Your task to perform on an android device: turn vacation reply on in the gmail app Image 0: 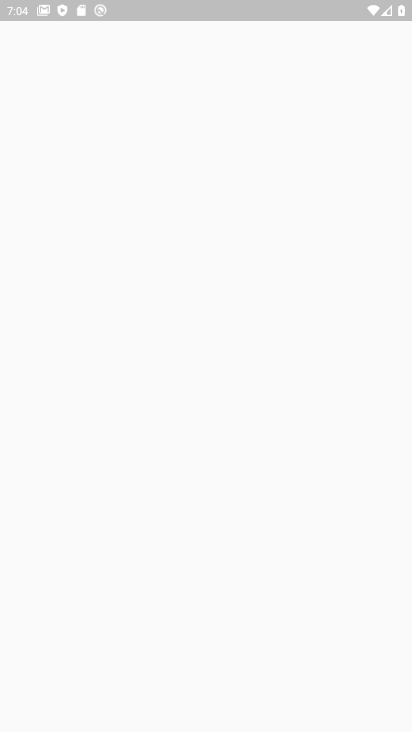
Step 0: press home button
Your task to perform on an android device: turn vacation reply on in the gmail app Image 1: 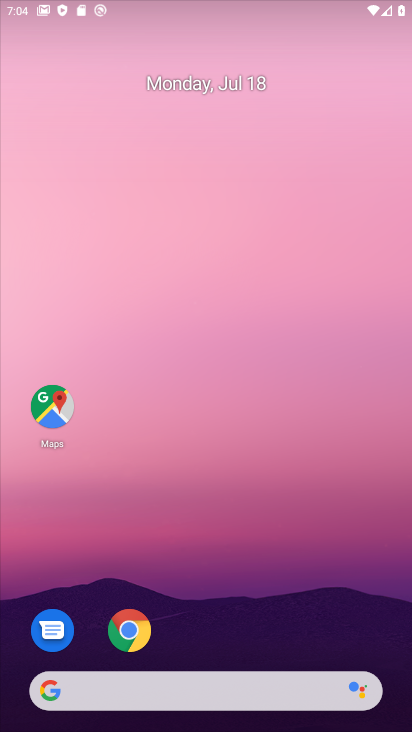
Step 1: drag from (320, 608) to (190, 50)
Your task to perform on an android device: turn vacation reply on in the gmail app Image 2: 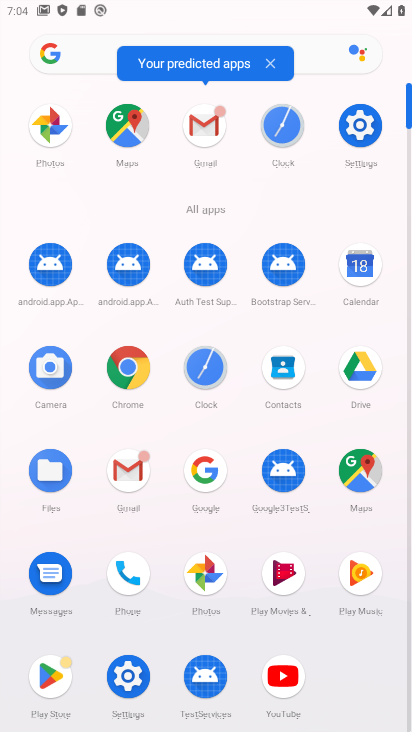
Step 2: click (213, 132)
Your task to perform on an android device: turn vacation reply on in the gmail app Image 3: 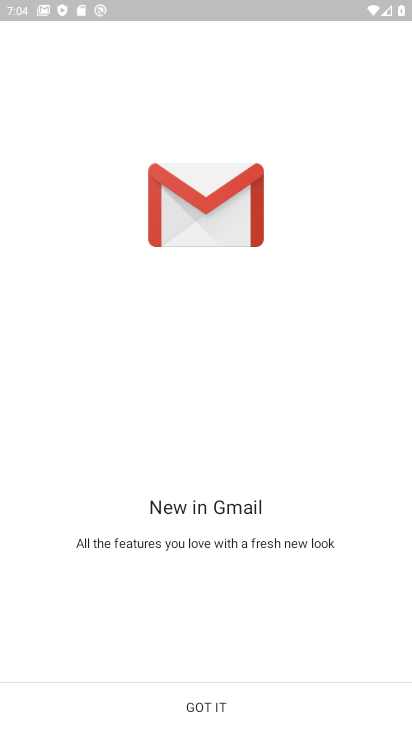
Step 3: click (199, 709)
Your task to perform on an android device: turn vacation reply on in the gmail app Image 4: 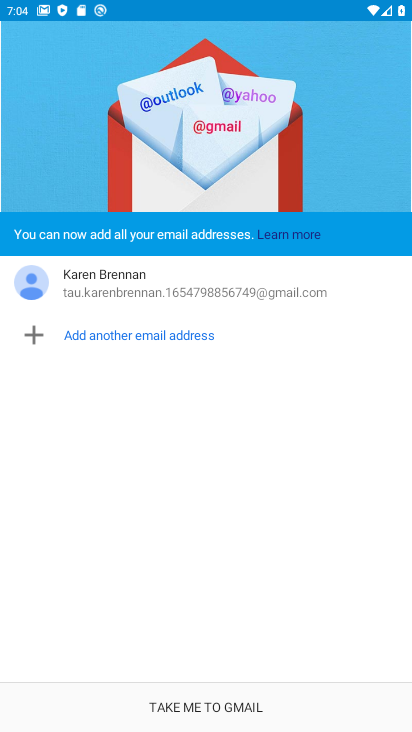
Step 4: click (199, 704)
Your task to perform on an android device: turn vacation reply on in the gmail app Image 5: 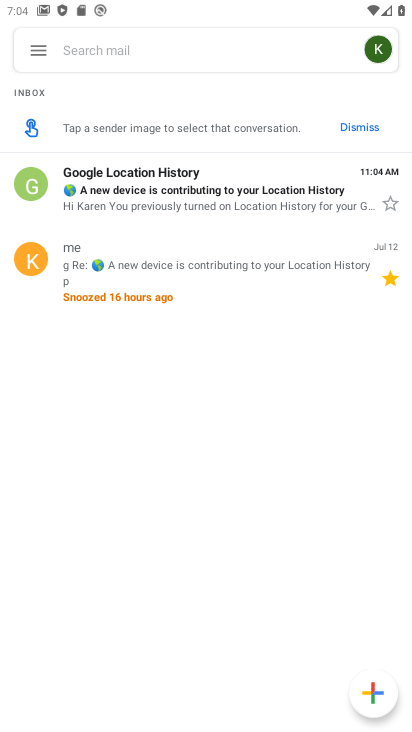
Step 5: click (35, 51)
Your task to perform on an android device: turn vacation reply on in the gmail app Image 6: 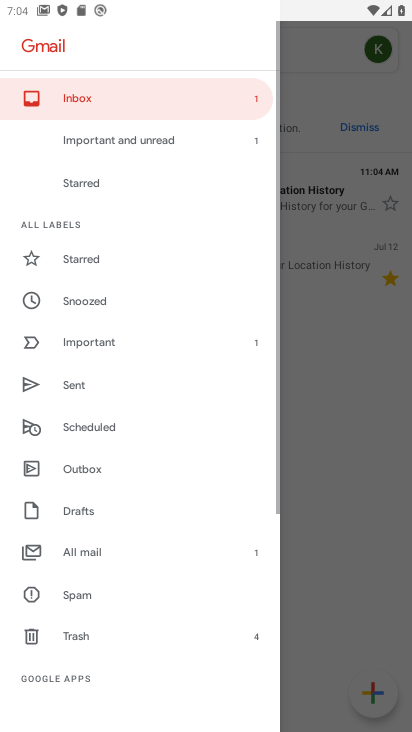
Step 6: drag from (103, 564) to (89, 150)
Your task to perform on an android device: turn vacation reply on in the gmail app Image 7: 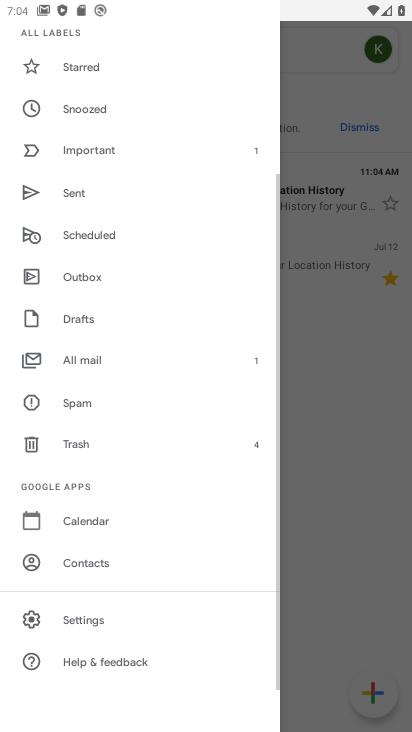
Step 7: click (97, 614)
Your task to perform on an android device: turn vacation reply on in the gmail app Image 8: 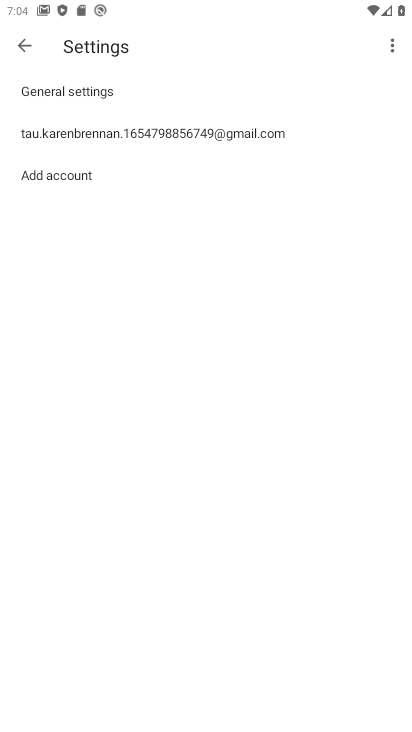
Step 8: click (128, 143)
Your task to perform on an android device: turn vacation reply on in the gmail app Image 9: 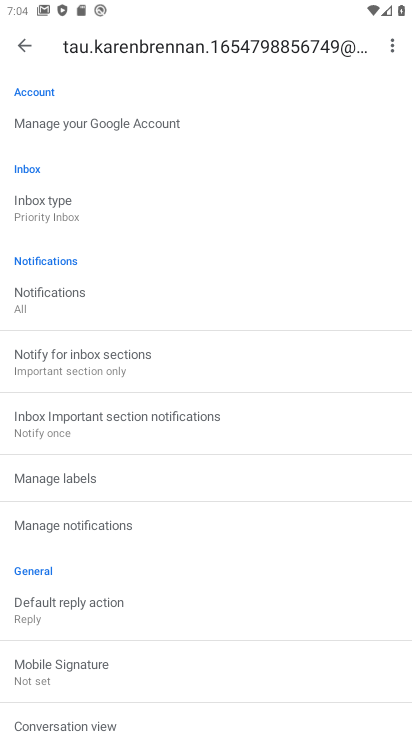
Step 9: drag from (191, 577) to (206, 94)
Your task to perform on an android device: turn vacation reply on in the gmail app Image 10: 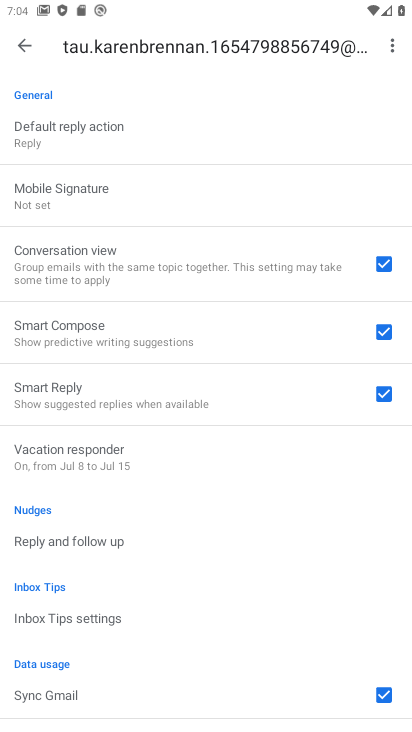
Step 10: click (114, 451)
Your task to perform on an android device: turn vacation reply on in the gmail app Image 11: 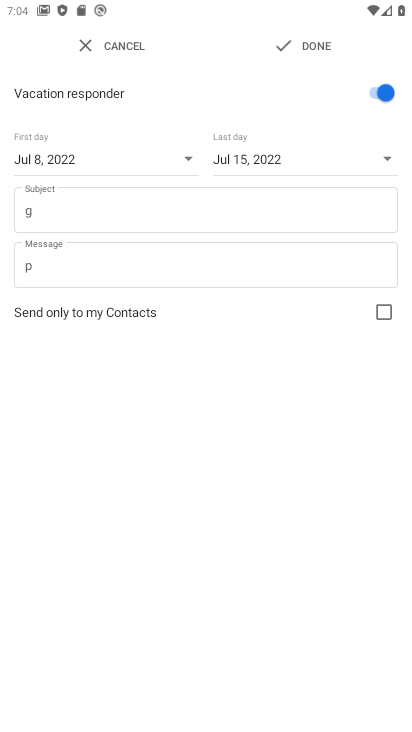
Step 11: task complete